Your task to perform on an android device: Open the calendar and show me this week's events? Image 0: 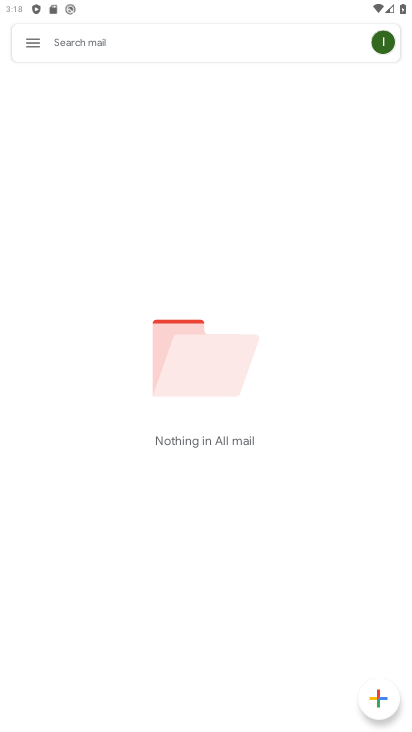
Step 0: press back button
Your task to perform on an android device: Open the calendar and show me this week's events? Image 1: 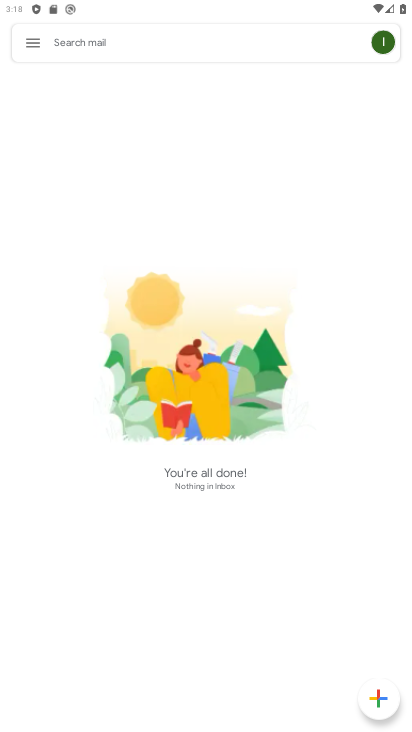
Step 1: press back button
Your task to perform on an android device: Open the calendar and show me this week's events? Image 2: 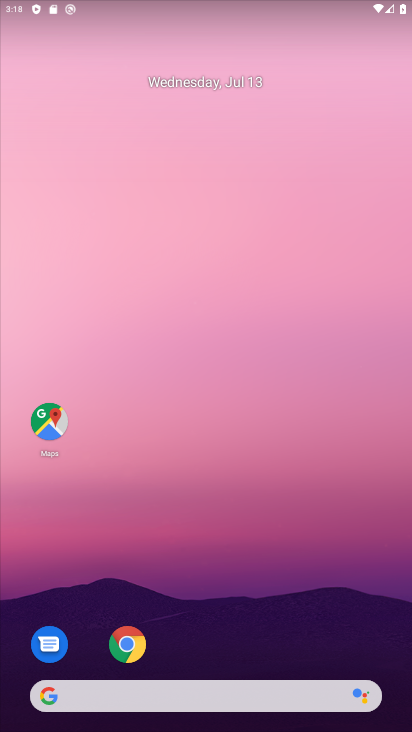
Step 2: drag from (249, 581) to (286, 0)
Your task to perform on an android device: Open the calendar and show me this week's events? Image 3: 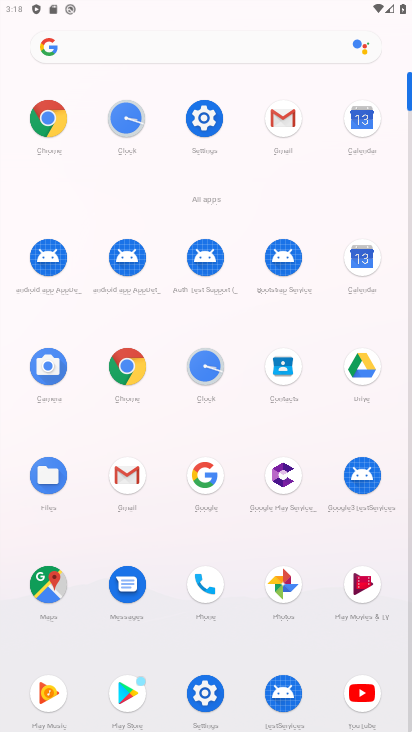
Step 3: click (354, 246)
Your task to perform on an android device: Open the calendar and show me this week's events? Image 4: 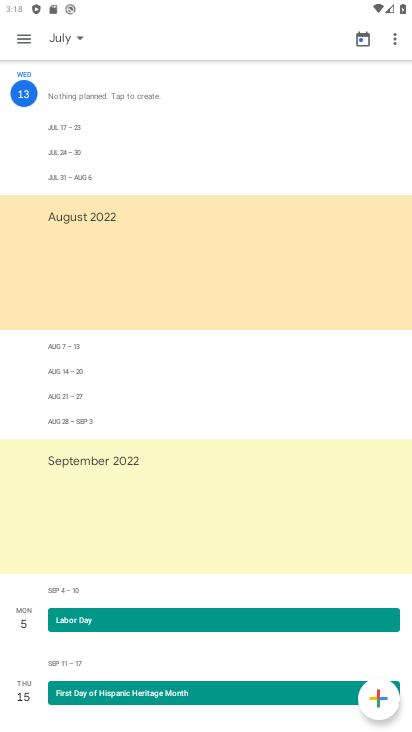
Step 4: click (67, 36)
Your task to perform on an android device: Open the calendar and show me this week's events? Image 5: 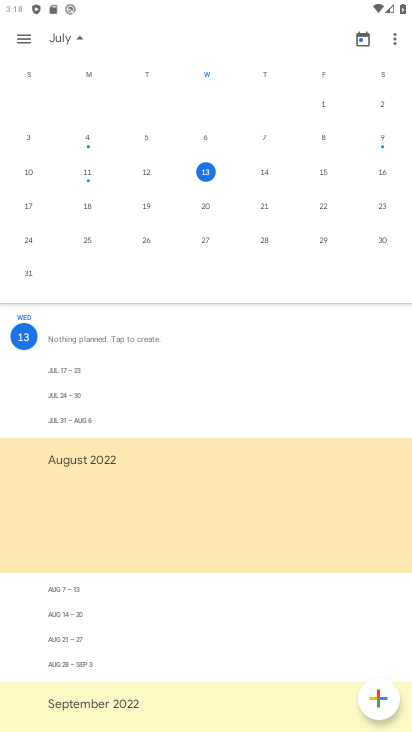
Step 5: drag from (374, 182) to (5, 174)
Your task to perform on an android device: Open the calendar and show me this week's events? Image 6: 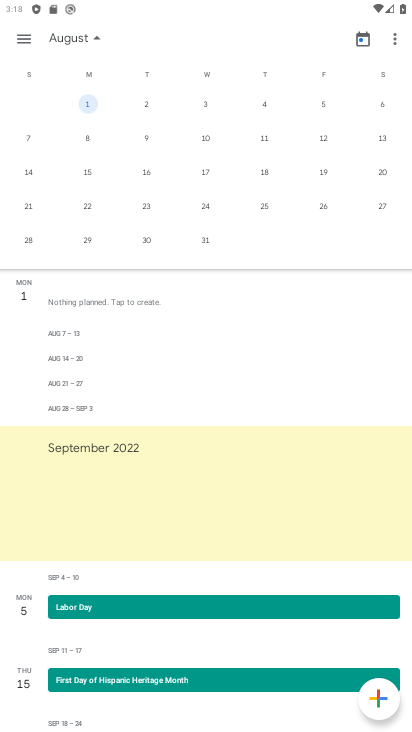
Step 6: drag from (374, 163) to (6, 163)
Your task to perform on an android device: Open the calendar and show me this week's events? Image 7: 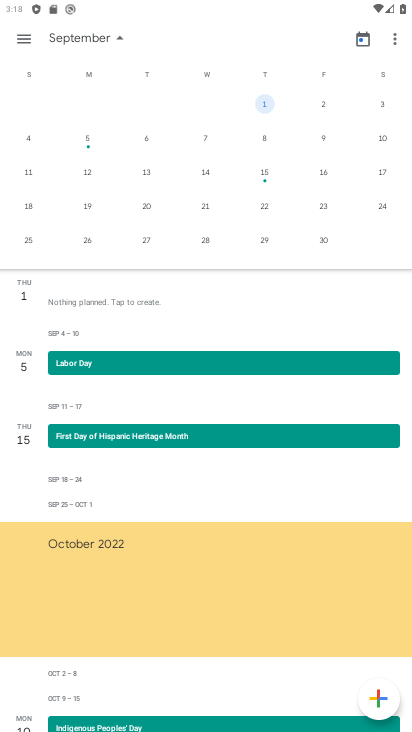
Step 7: drag from (26, 169) to (373, 175)
Your task to perform on an android device: Open the calendar and show me this week's events? Image 8: 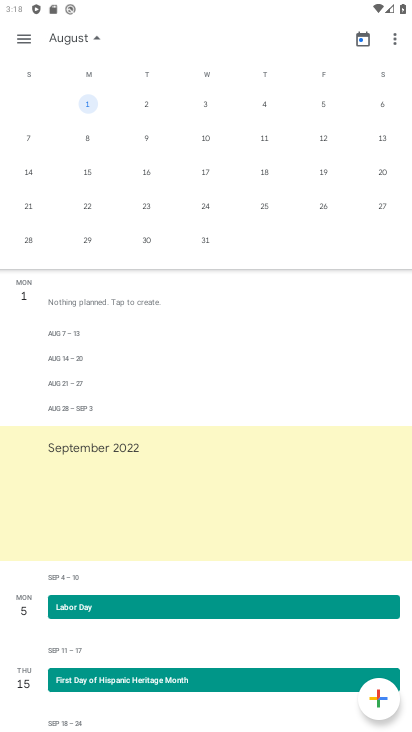
Step 8: drag from (38, 167) to (348, 179)
Your task to perform on an android device: Open the calendar and show me this week's events? Image 9: 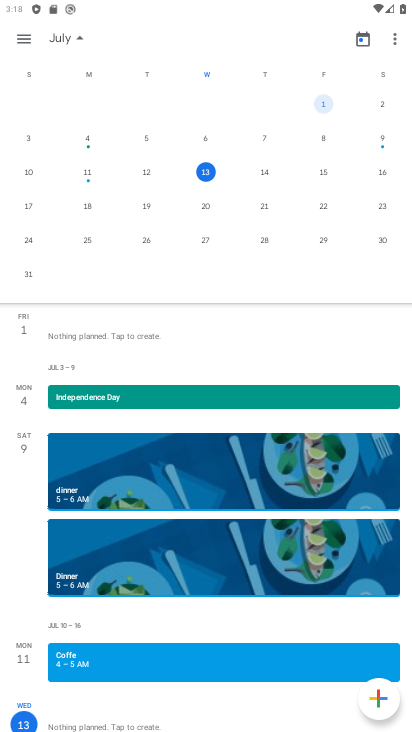
Step 9: click (204, 174)
Your task to perform on an android device: Open the calendar and show me this week's events? Image 10: 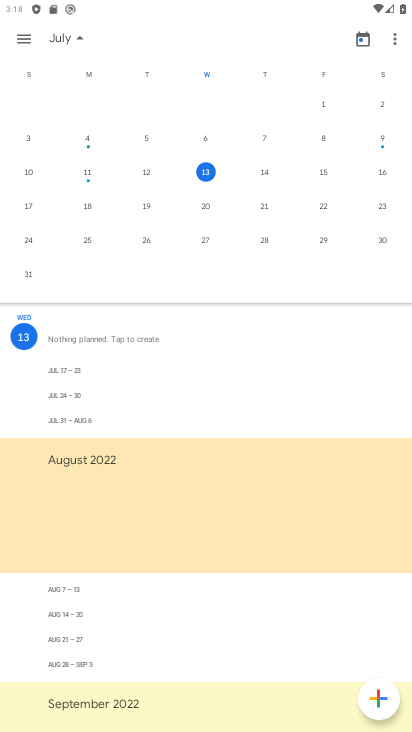
Step 10: task complete